Your task to perform on an android device: toggle wifi Image 0: 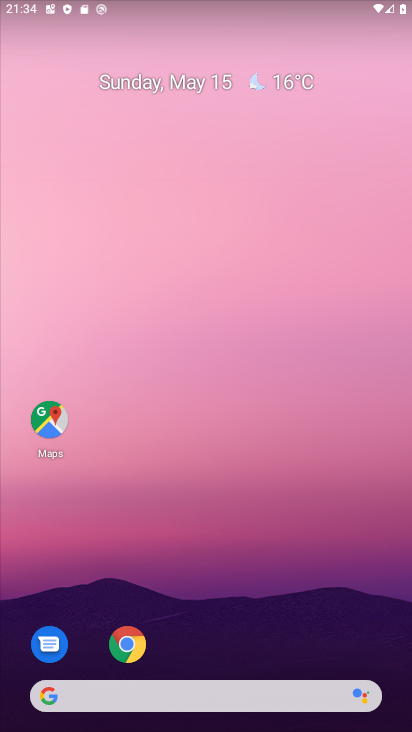
Step 0: drag from (70, 6) to (156, 574)
Your task to perform on an android device: toggle wifi Image 1: 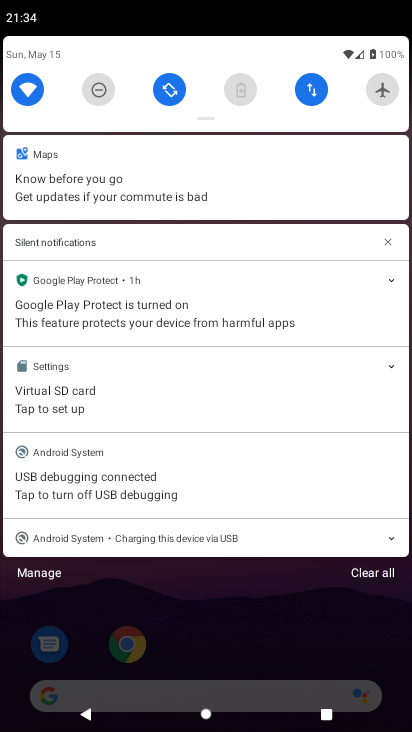
Step 1: click (31, 86)
Your task to perform on an android device: toggle wifi Image 2: 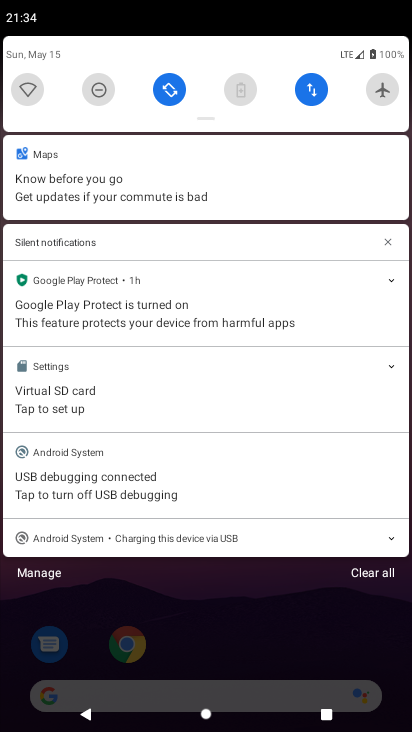
Step 2: task complete